Your task to perform on an android device: clear all cookies in the chrome app Image 0: 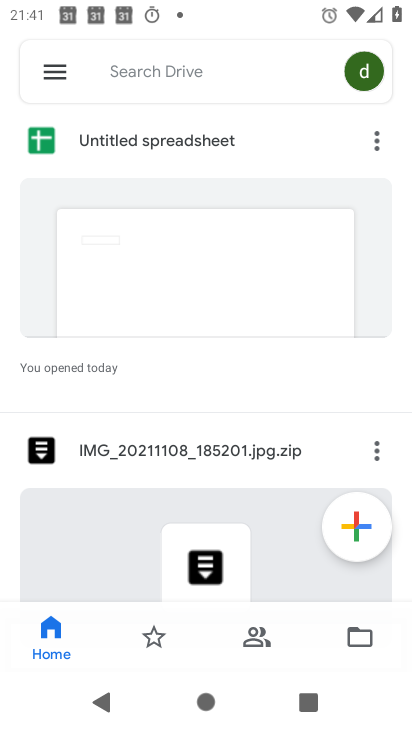
Step 0: press home button
Your task to perform on an android device: clear all cookies in the chrome app Image 1: 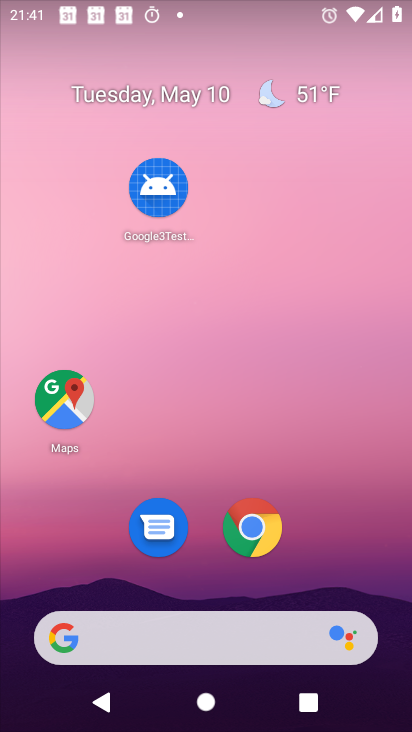
Step 1: drag from (239, 587) to (335, 23)
Your task to perform on an android device: clear all cookies in the chrome app Image 2: 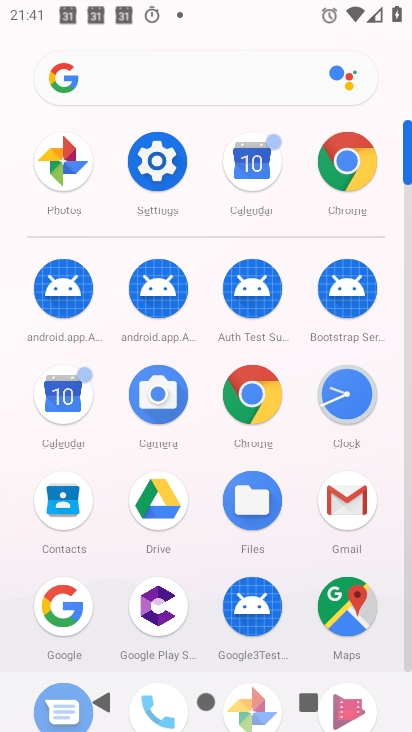
Step 2: click (338, 179)
Your task to perform on an android device: clear all cookies in the chrome app Image 3: 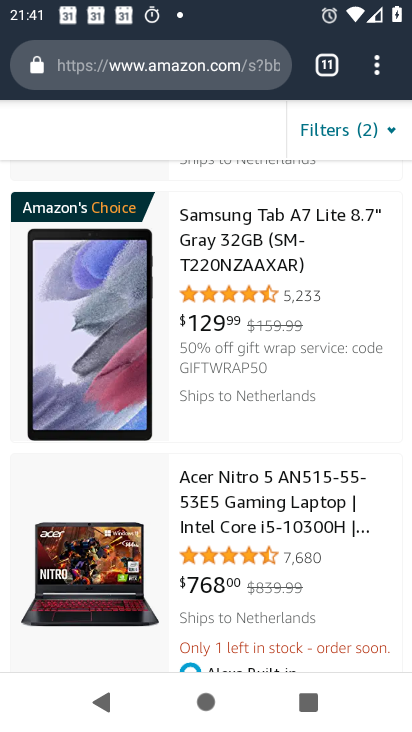
Step 3: click (386, 68)
Your task to perform on an android device: clear all cookies in the chrome app Image 4: 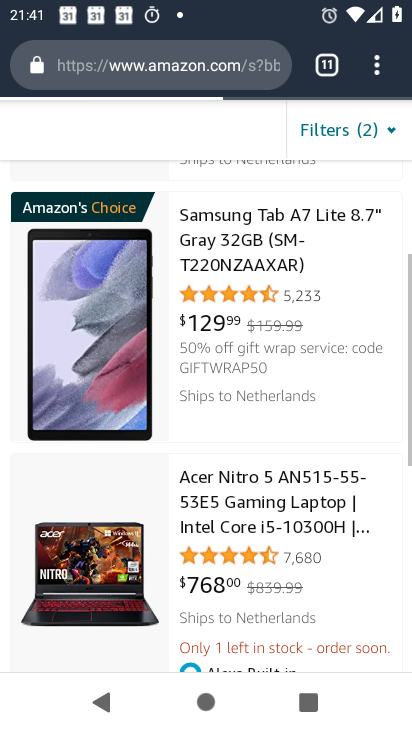
Step 4: drag from (385, 68) to (147, 583)
Your task to perform on an android device: clear all cookies in the chrome app Image 5: 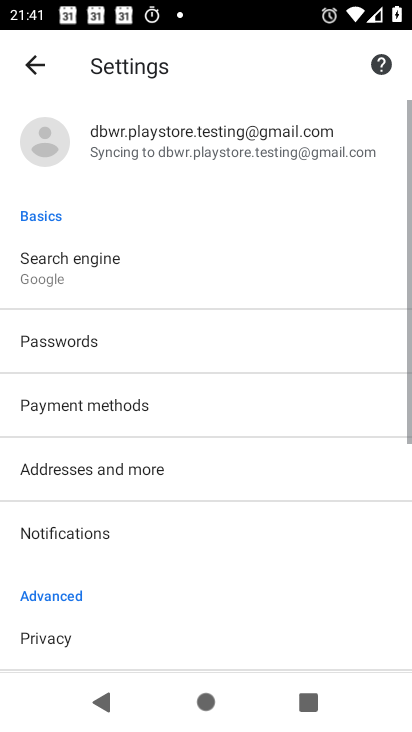
Step 5: drag from (149, 569) to (149, 272)
Your task to perform on an android device: clear all cookies in the chrome app Image 6: 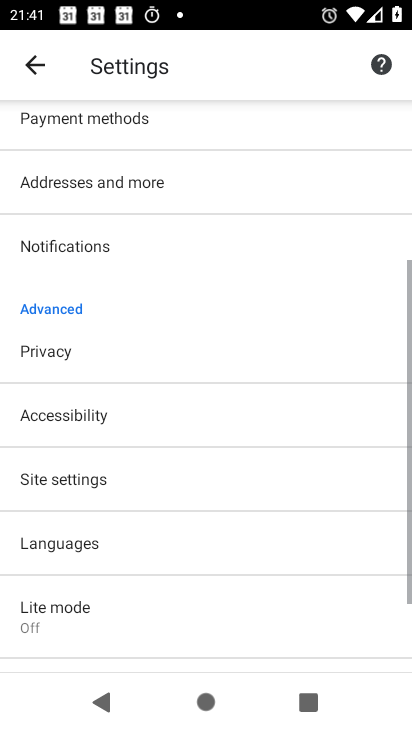
Step 6: click (34, 345)
Your task to perform on an android device: clear all cookies in the chrome app Image 7: 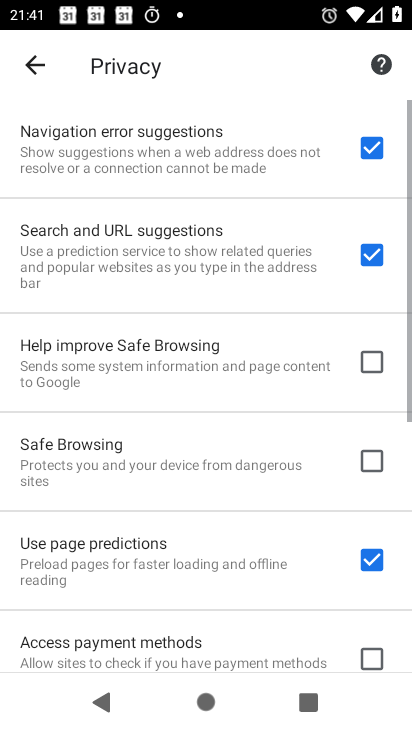
Step 7: drag from (237, 557) to (198, 14)
Your task to perform on an android device: clear all cookies in the chrome app Image 8: 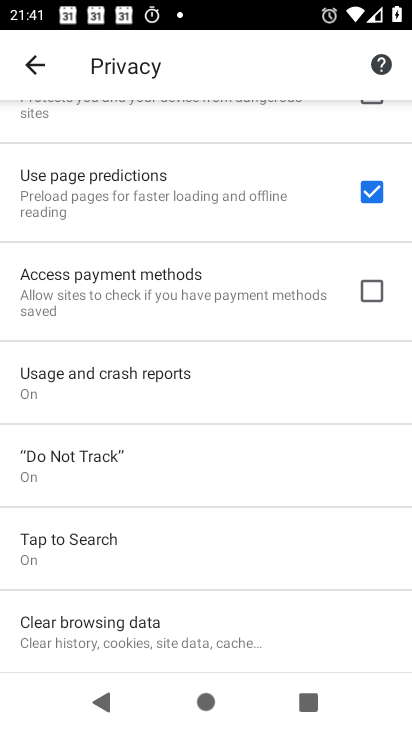
Step 8: click (135, 624)
Your task to perform on an android device: clear all cookies in the chrome app Image 9: 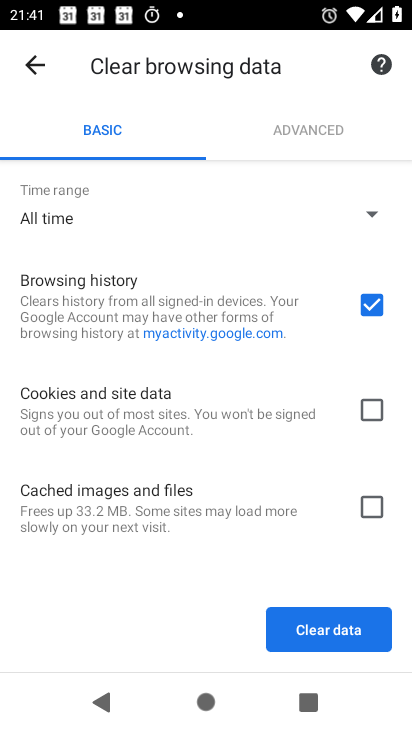
Step 9: click (360, 409)
Your task to perform on an android device: clear all cookies in the chrome app Image 10: 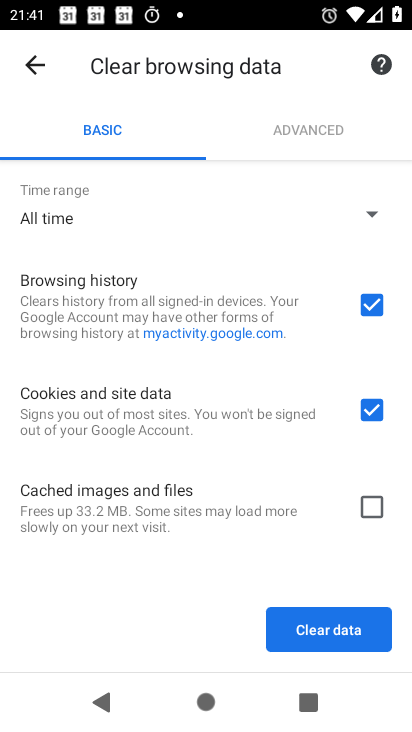
Step 10: click (376, 510)
Your task to perform on an android device: clear all cookies in the chrome app Image 11: 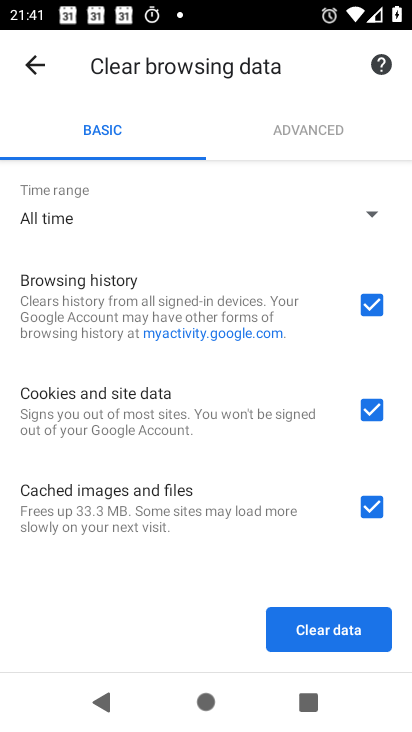
Step 11: click (345, 623)
Your task to perform on an android device: clear all cookies in the chrome app Image 12: 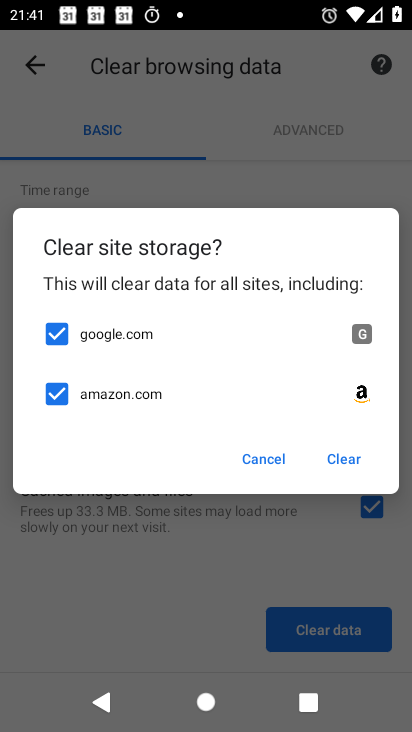
Step 12: click (353, 462)
Your task to perform on an android device: clear all cookies in the chrome app Image 13: 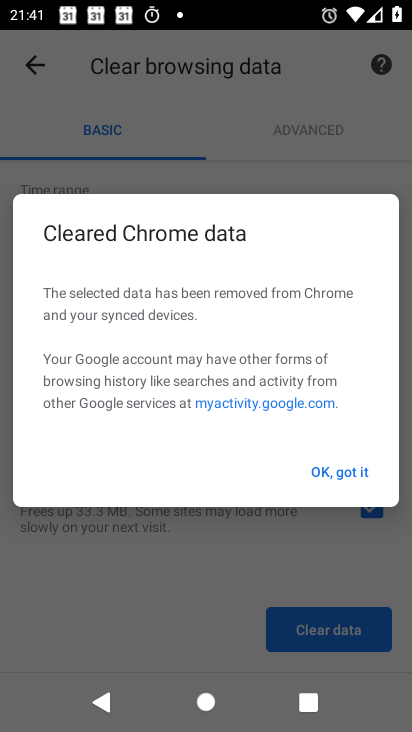
Step 13: click (333, 474)
Your task to perform on an android device: clear all cookies in the chrome app Image 14: 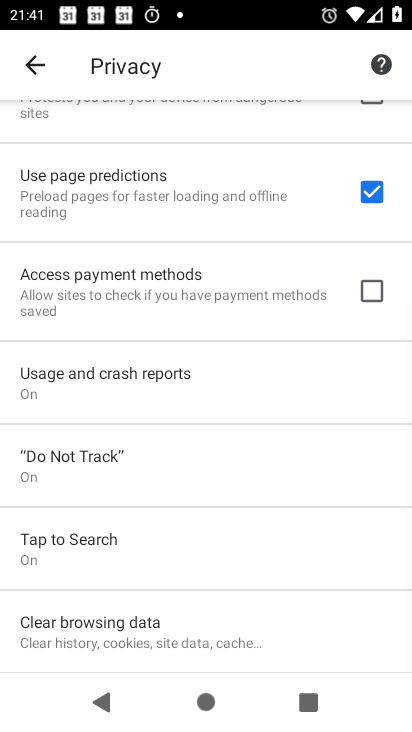
Step 14: task complete